Your task to perform on an android device: Search for Italian restaurants on Maps Image 0: 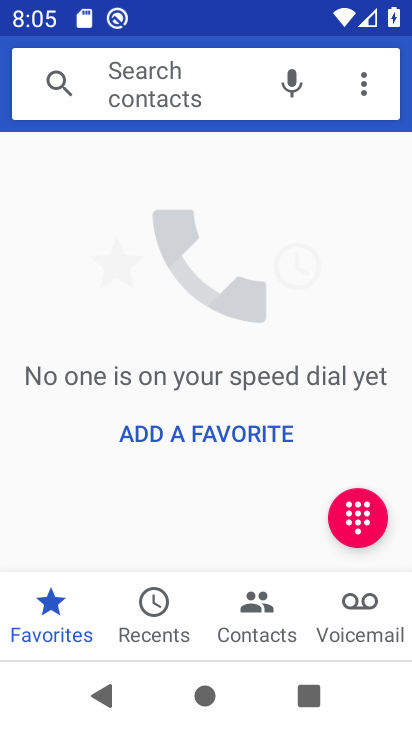
Step 0: press home button
Your task to perform on an android device: Search for Italian restaurants on Maps Image 1: 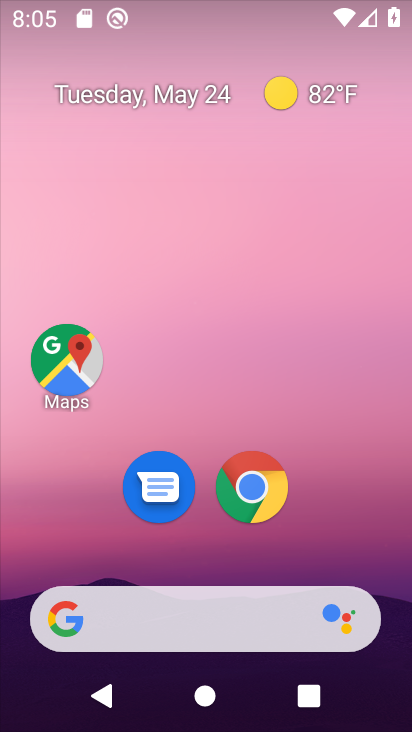
Step 1: drag from (327, 496) to (326, 193)
Your task to perform on an android device: Search for Italian restaurants on Maps Image 2: 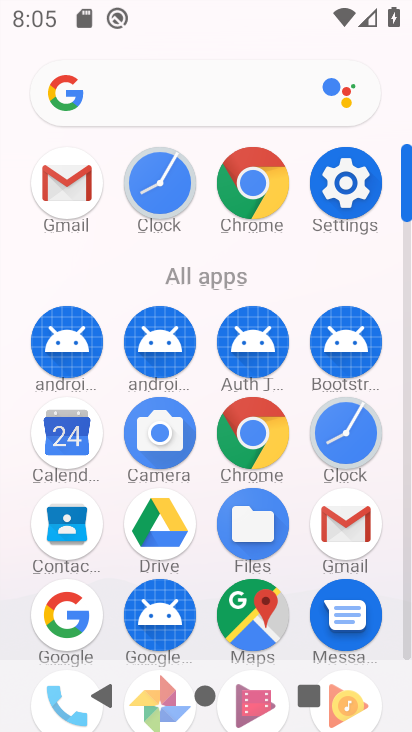
Step 2: click (240, 626)
Your task to perform on an android device: Search for Italian restaurants on Maps Image 3: 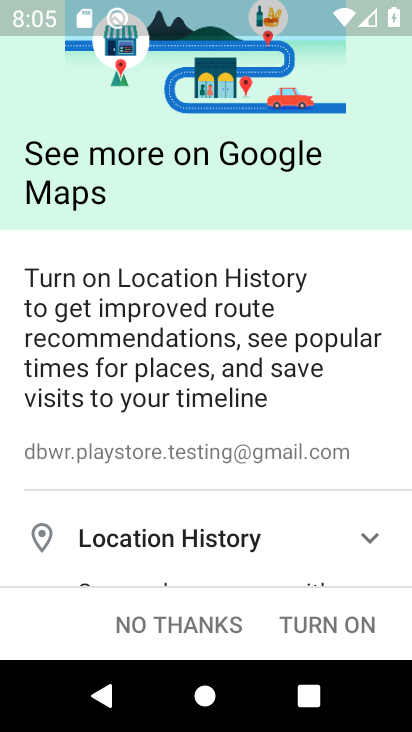
Step 3: click (199, 631)
Your task to perform on an android device: Search for Italian restaurants on Maps Image 4: 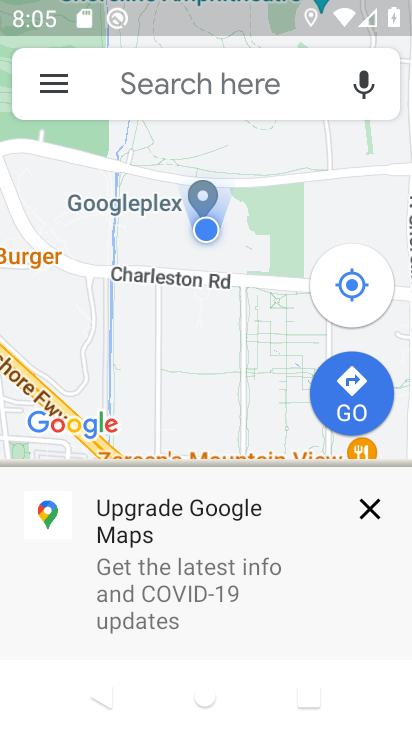
Step 4: click (252, 80)
Your task to perform on an android device: Search for Italian restaurants on Maps Image 5: 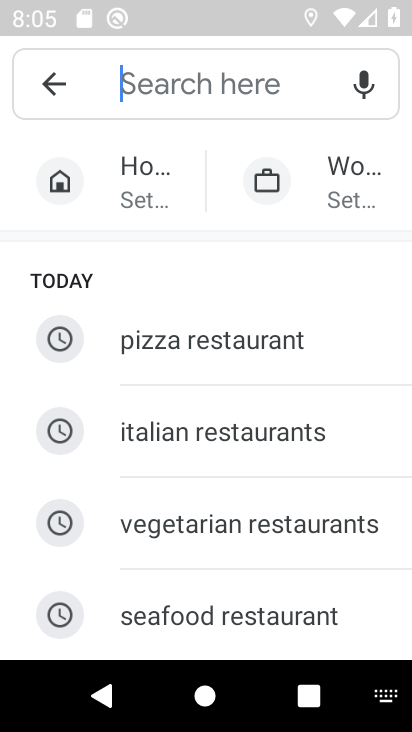
Step 5: click (209, 428)
Your task to perform on an android device: Search for Italian restaurants on Maps Image 6: 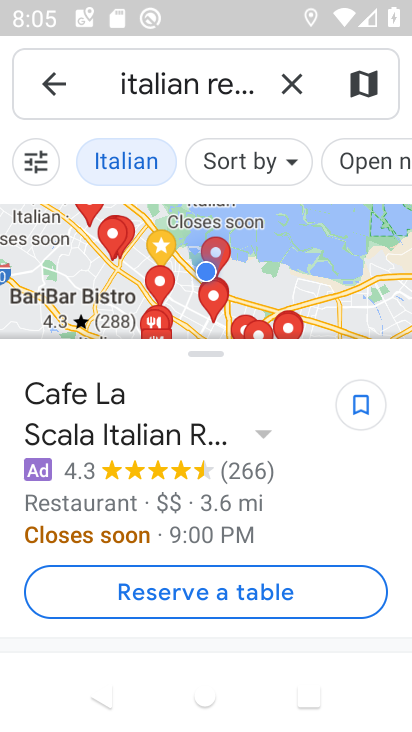
Step 6: task complete